Your task to perform on an android device: open app "Contacts" Image 0: 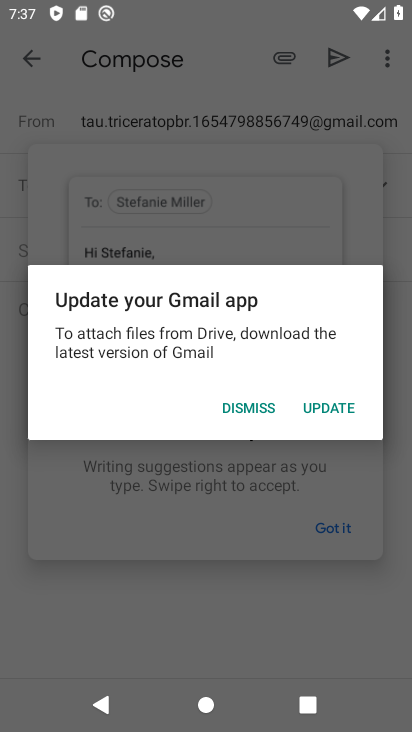
Step 0: press home button
Your task to perform on an android device: open app "Contacts" Image 1: 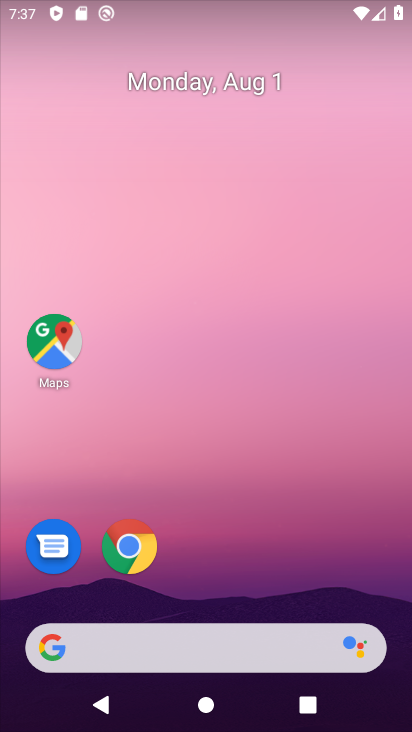
Step 1: drag from (221, 556) to (279, 0)
Your task to perform on an android device: open app "Contacts" Image 2: 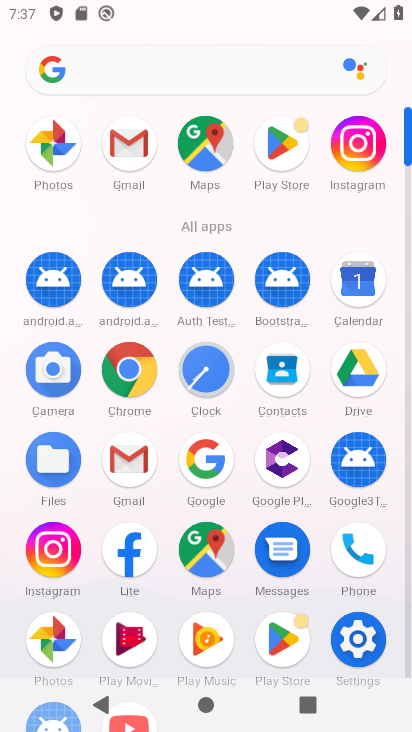
Step 2: click (280, 378)
Your task to perform on an android device: open app "Contacts" Image 3: 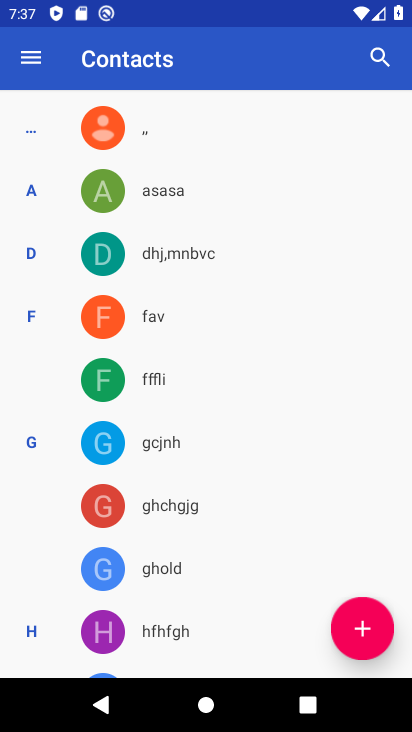
Step 3: task complete